Your task to perform on an android device: change the upload size in google photos Image 0: 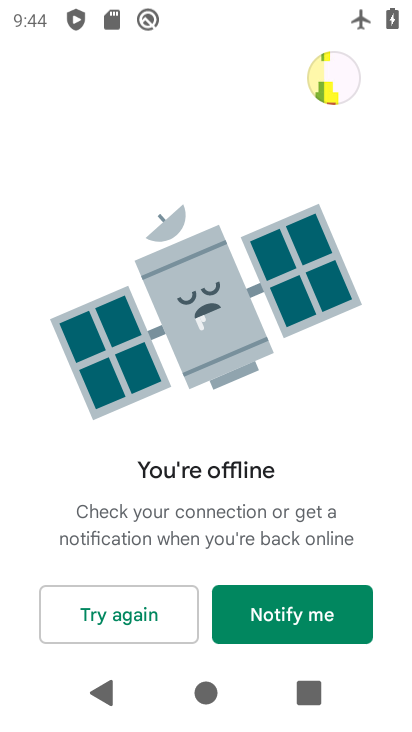
Step 0: press home button
Your task to perform on an android device: change the upload size in google photos Image 1: 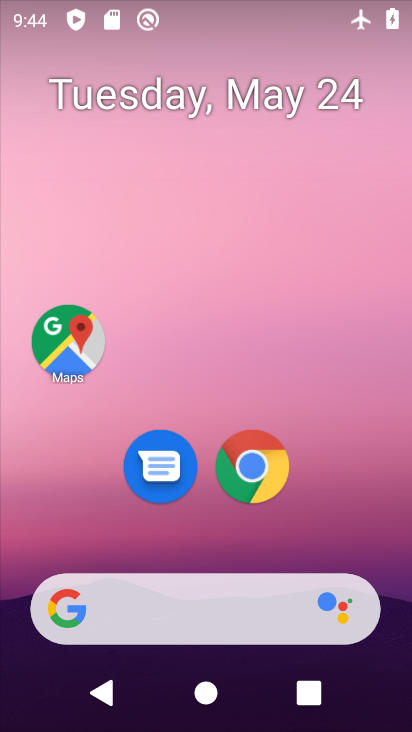
Step 1: drag from (188, 496) to (192, 177)
Your task to perform on an android device: change the upload size in google photos Image 2: 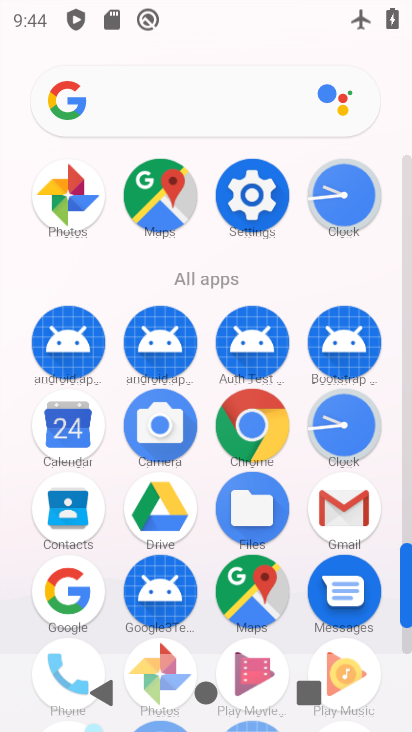
Step 2: drag from (216, 631) to (190, 297)
Your task to perform on an android device: change the upload size in google photos Image 3: 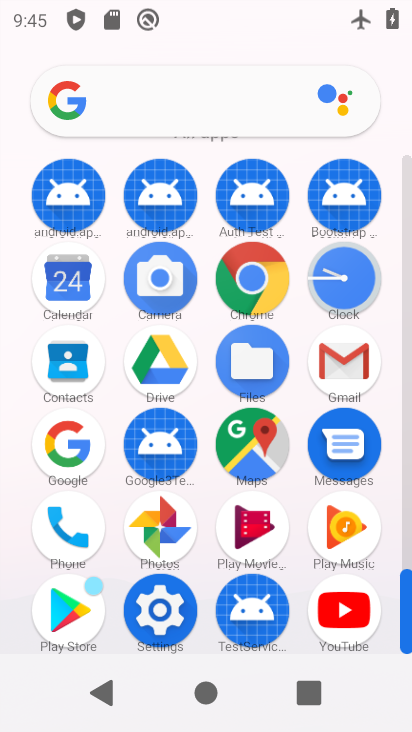
Step 3: click (156, 517)
Your task to perform on an android device: change the upload size in google photos Image 4: 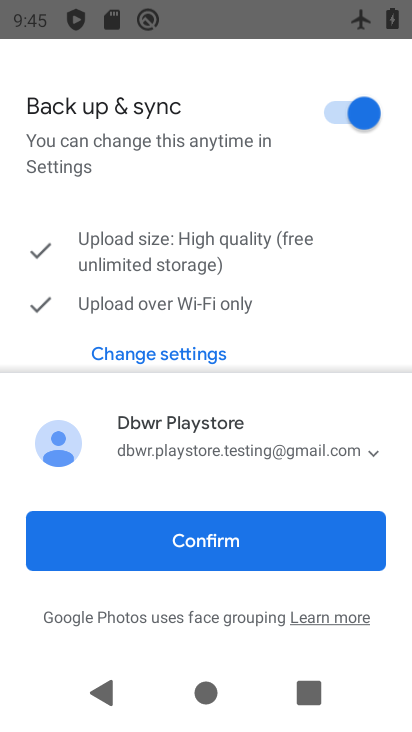
Step 4: click (251, 548)
Your task to perform on an android device: change the upload size in google photos Image 5: 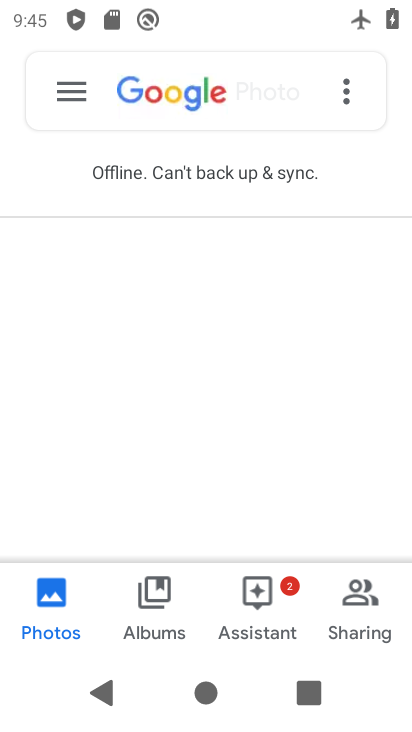
Step 5: click (57, 91)
Your task to perform on an android device: change the upload size in google photos Image 6: 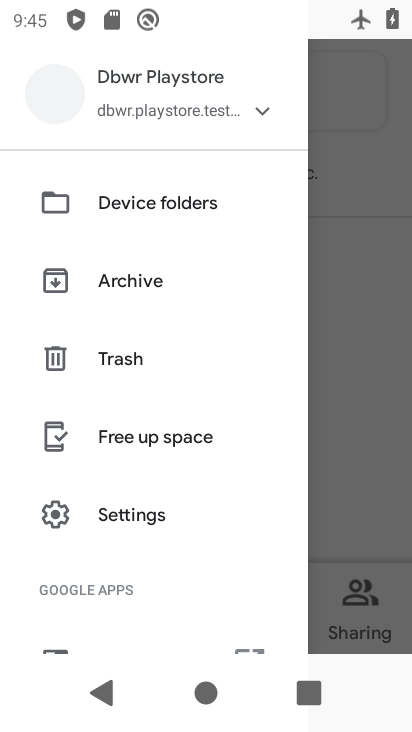
Step 6: click (102, 523)
Your task to perform on an android device: change the upload size in google photos Image 7: 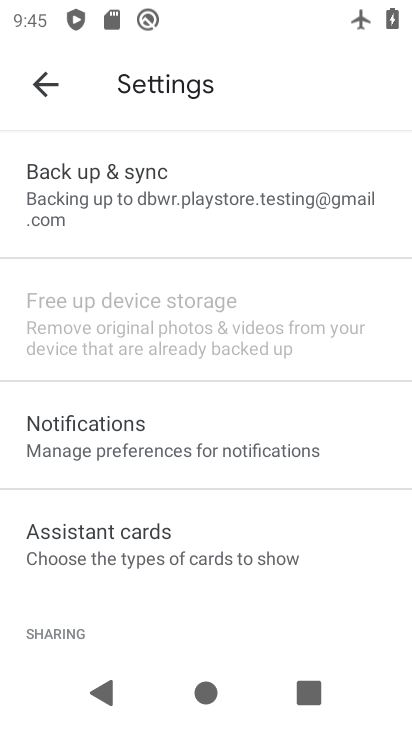
Step 7: click (169, 220)
Your task to perform on an android device: change the upload size in google photos Image 8: 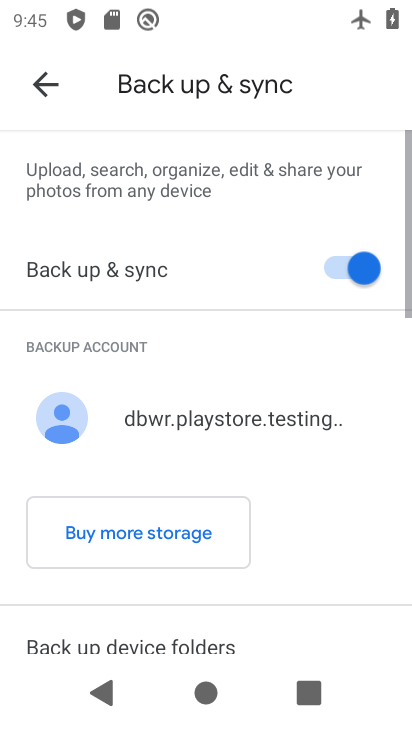
Step 8: drag from (163, 524) to (194, 278)
Your task to perform on an android device: change the upload size in google photos Image 9: 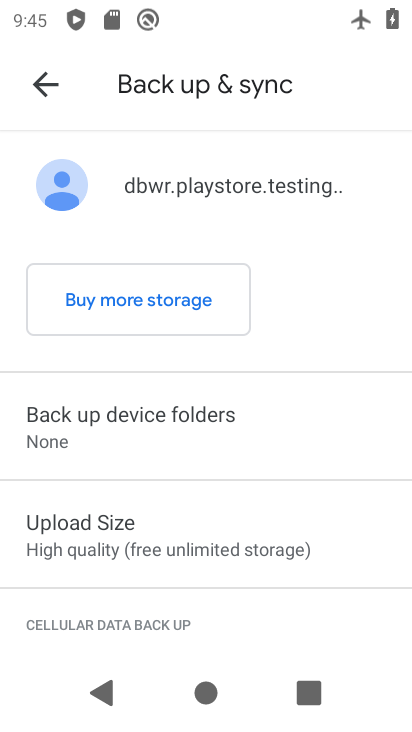
Step 9: click (148, 548)
Your task to perform on an android device: change the upload size in google photos Image 10: 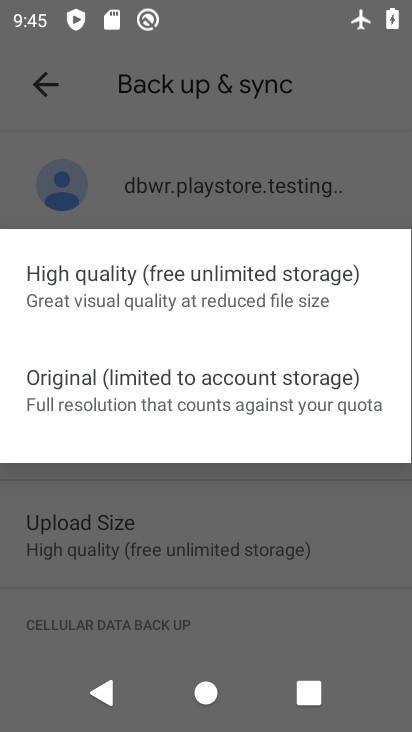
Step 10: click (134, 404)
Your task to perform on an android device: change the upload size in google photos Image 11: 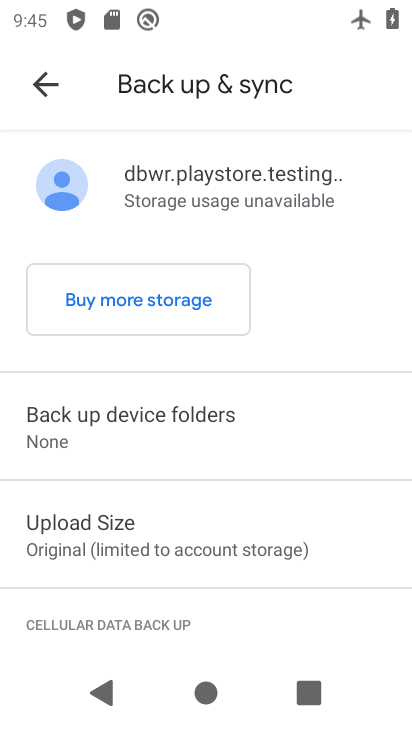
Step 11: task complete